Your task to perform on an android device: Set the phone to "Do not disturb". Image 0: 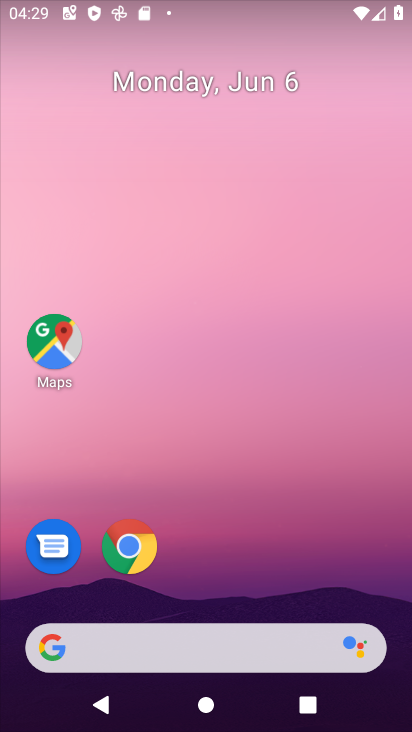
Step 0: task complete